Your task to perform on an android device: install app "Messenger Lite" Image 0: 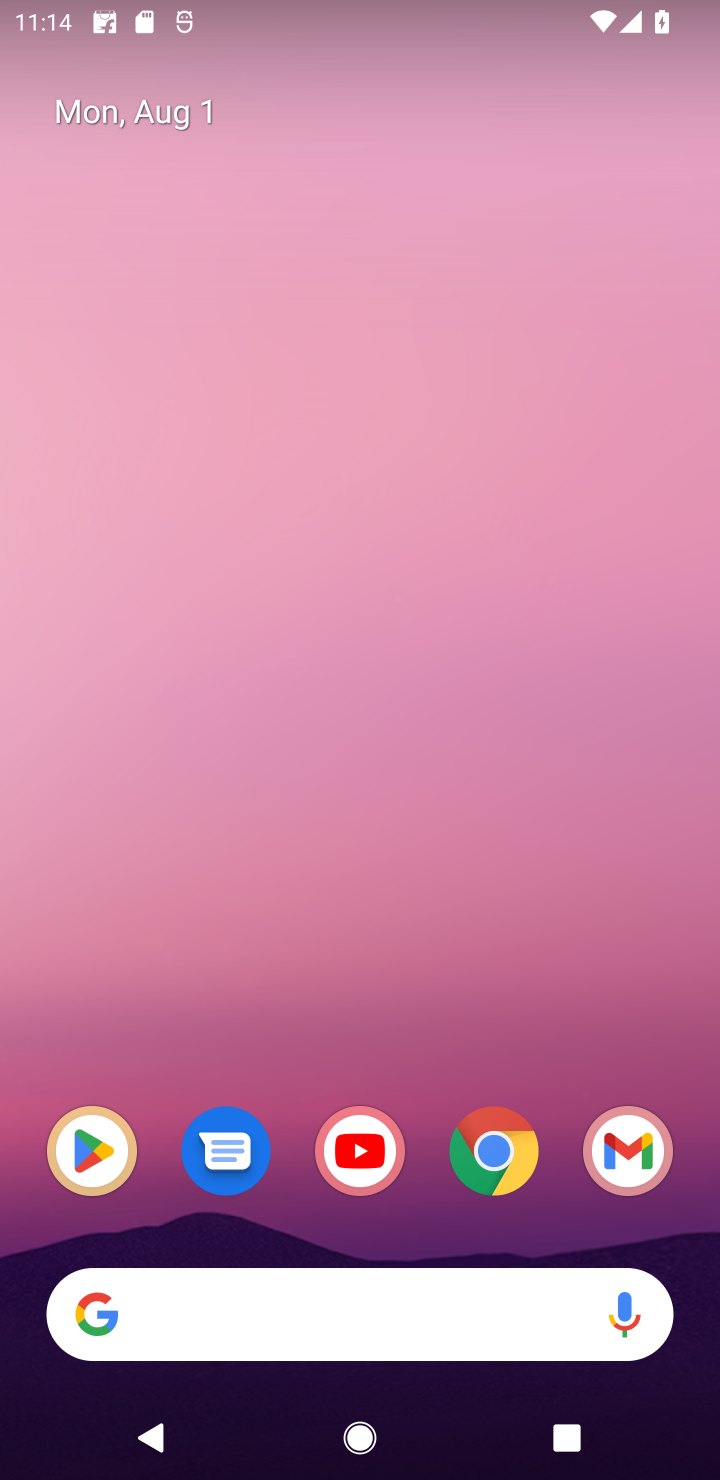
Step 0: click (101, 1142)
Your task to perform on an android device: install app "Messenger Lite" Image 1: 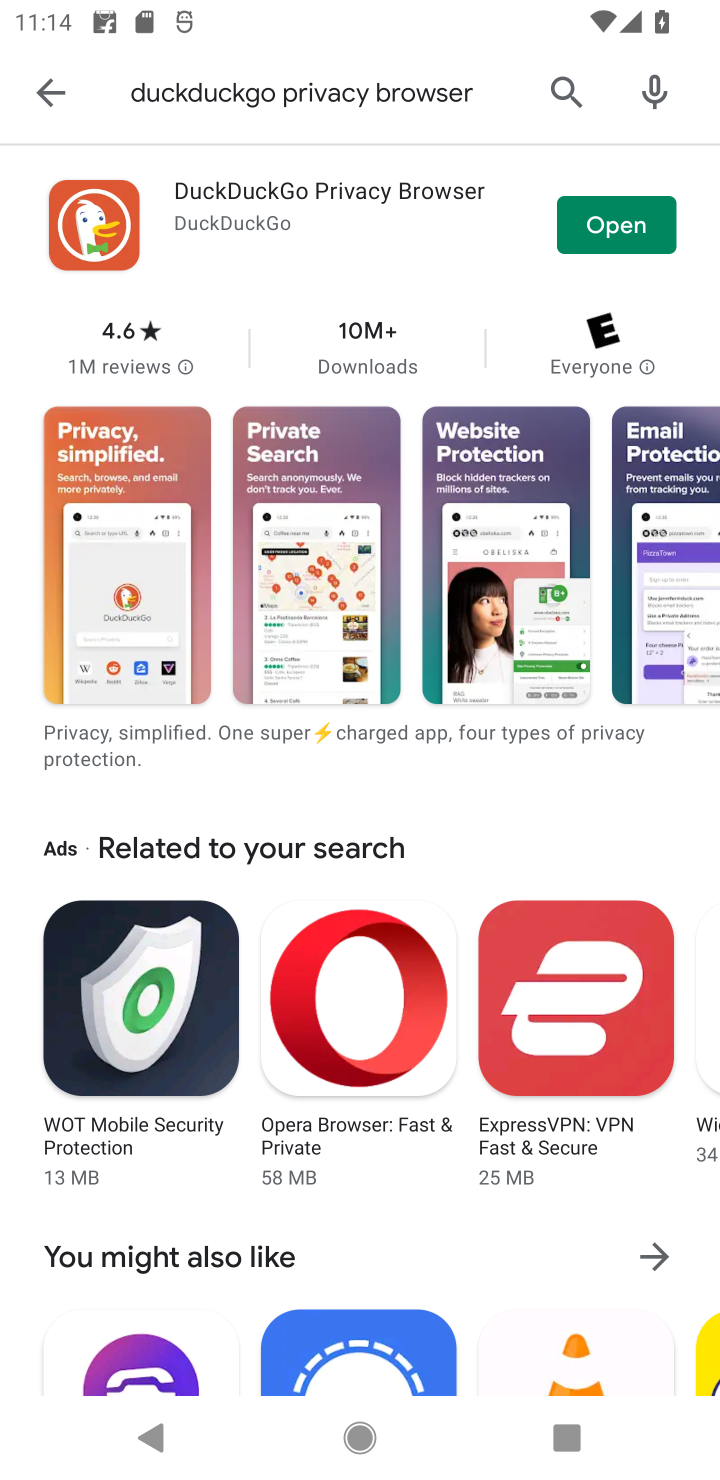
Step 1: click (556, 84)
Your task to perform on an android device: install app "Messenger Lite" Image 2: 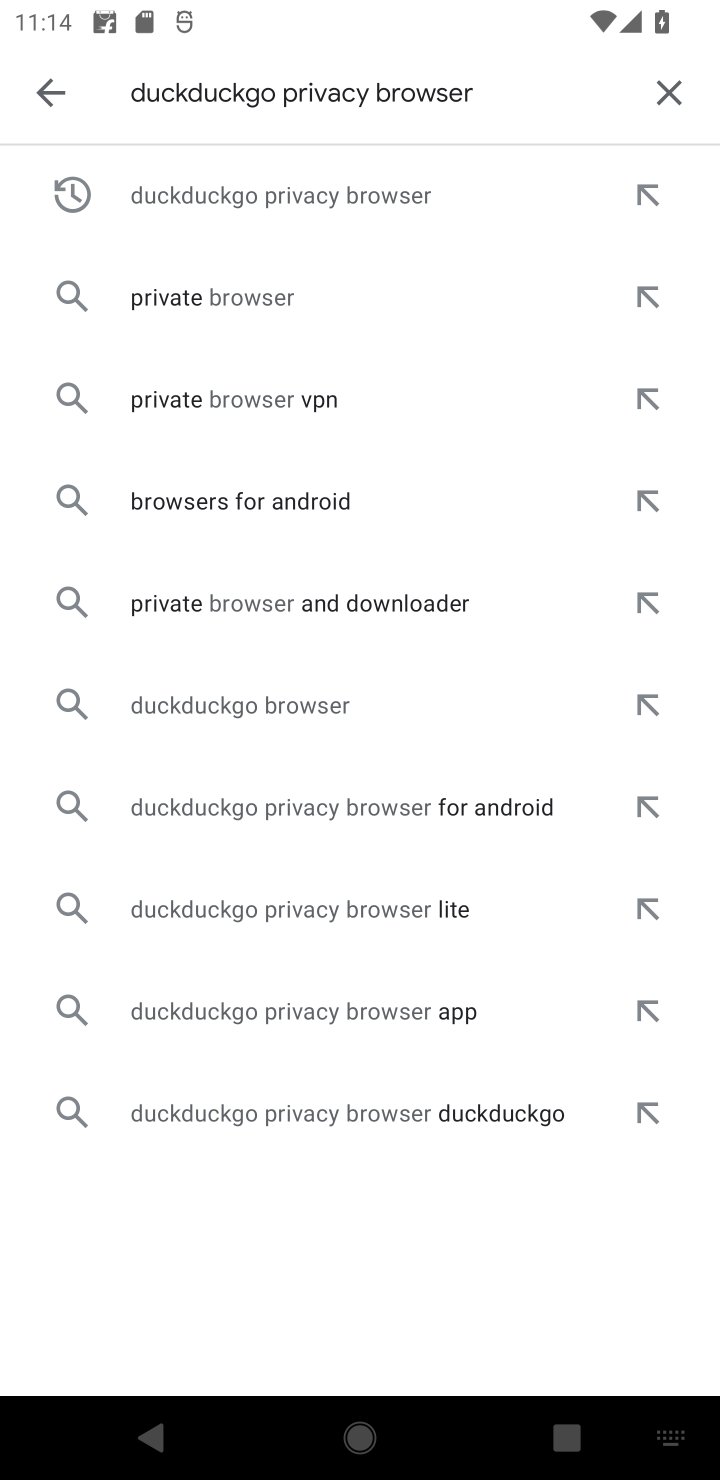
Step 2: click (653, 99)
Your task to perform on an android device: install app "Messenger Lite" Image 3: 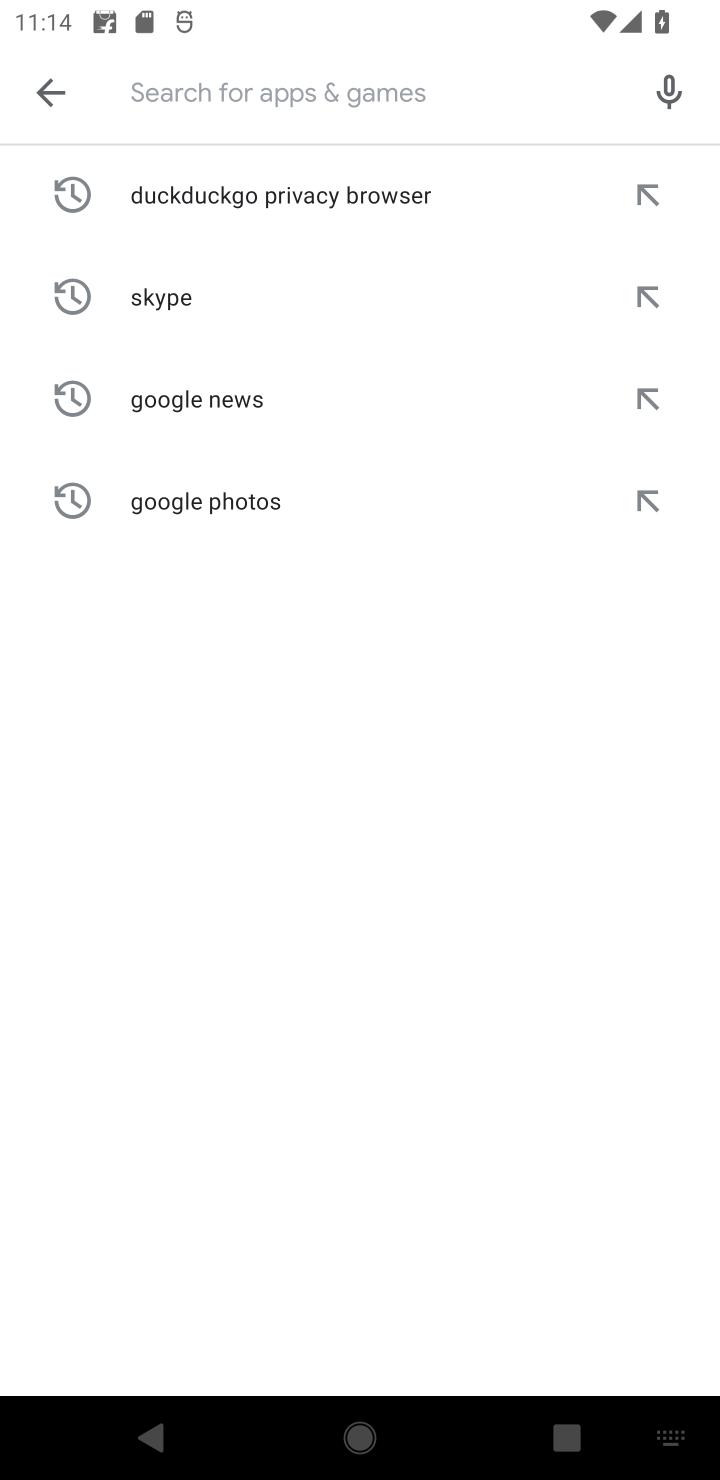
Step 3: type "Messenger Lite"
Your task to perform on an android device: install app "Messenger Lite" Image 4: 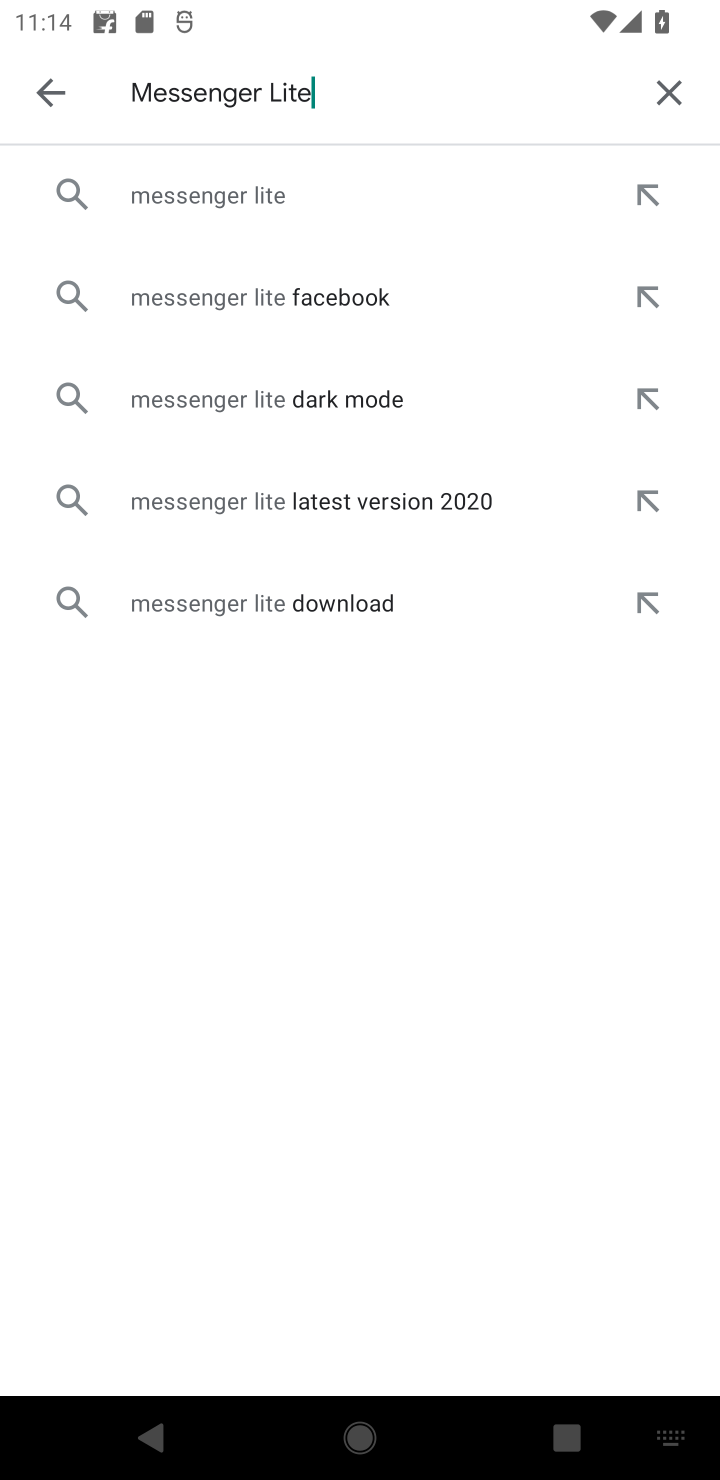
Step 4: click (375, 201)
Your task to perform on an android device: install app "Messenger Lite" Image 5: 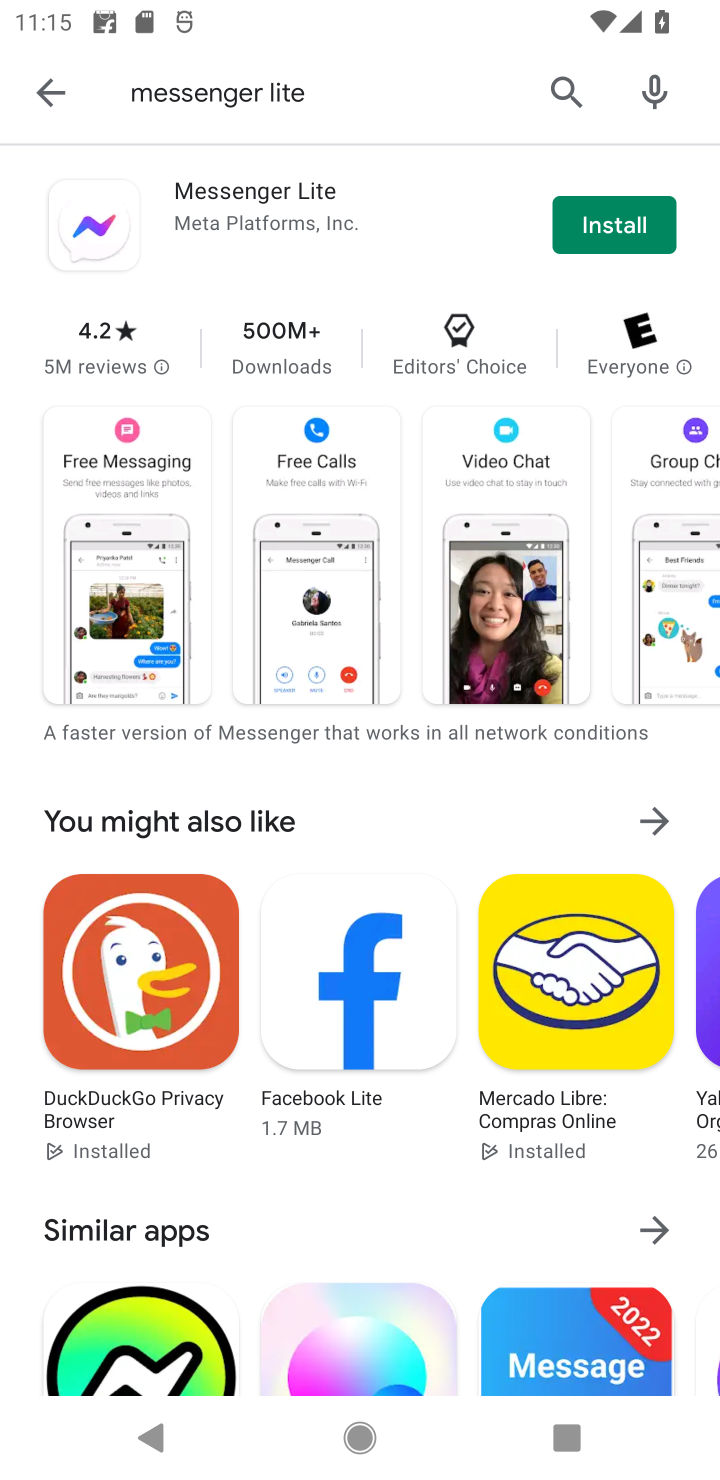
Step 5: click (617, 212)
Your task to perform on an android device: install app "Messenger Lite" Image 6: 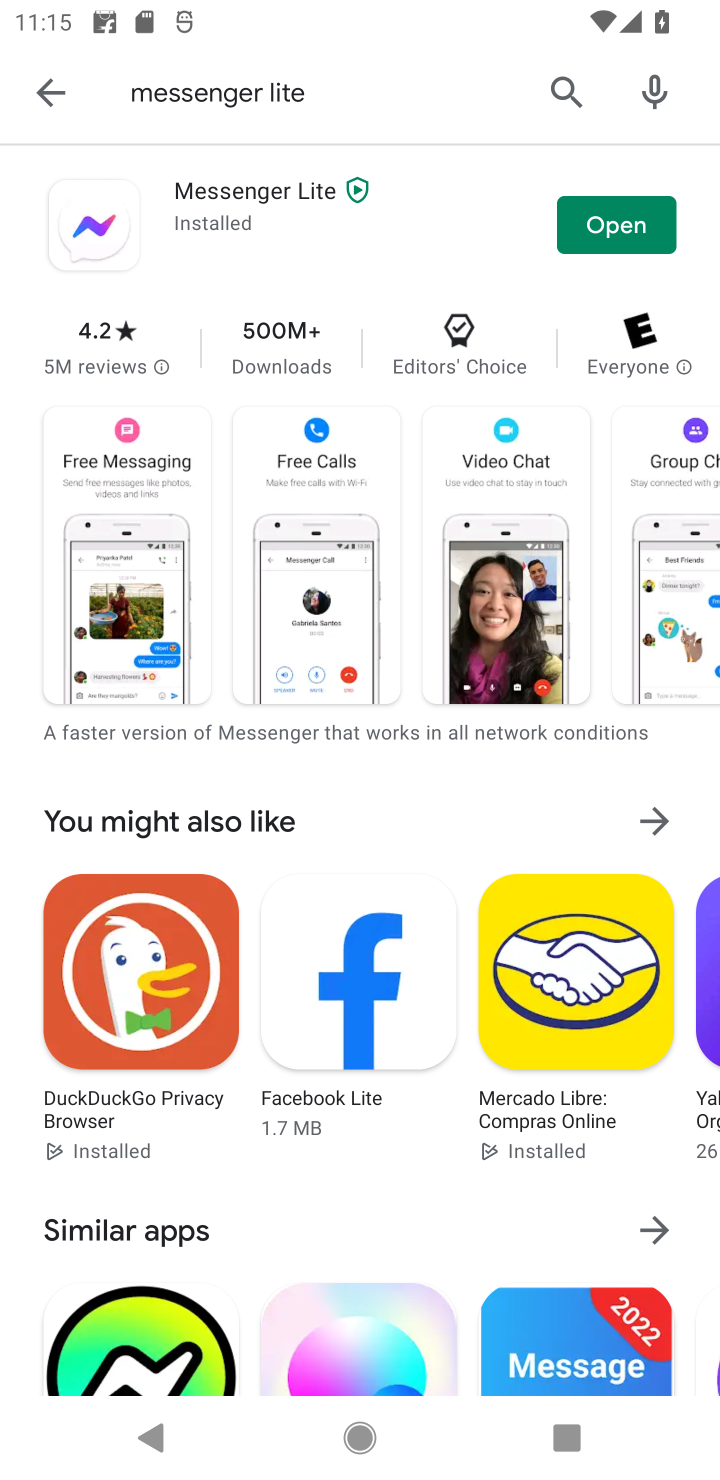
Step 6: task complete